Your task to perform on an android device: See recent photos Image 0: 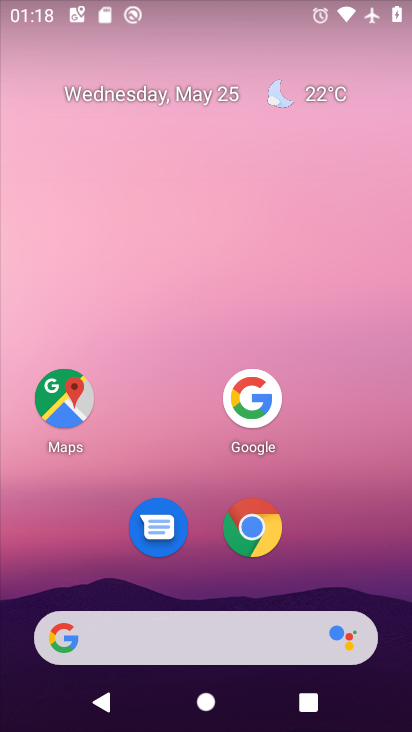
Step 0: press home button
Your task to perform on an android device: See recent photos Image 1: 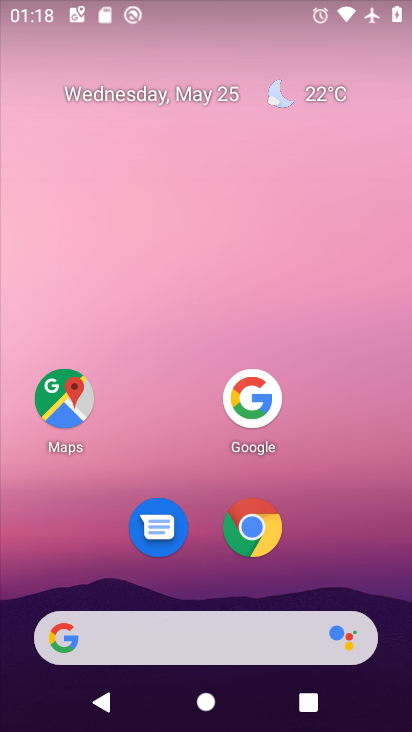
Step 1: drag from (194, 628) to (308, 174)
Your task to perform on an android device: See recent photos Image 2: 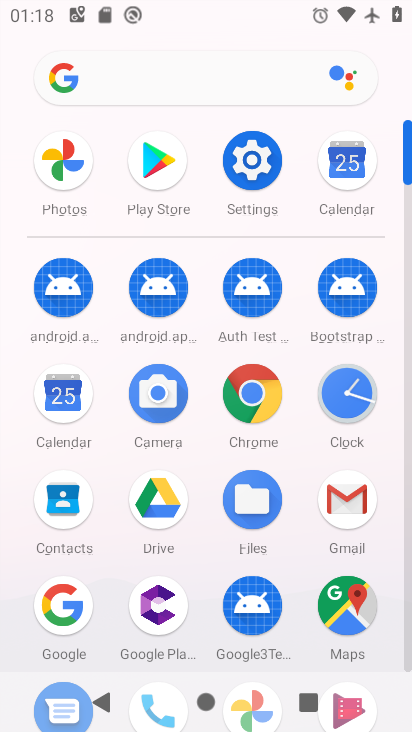
Step 2: drag from (204, 581) to (339, 115)
Your task to perform on an android device: See recent photos Image 3: 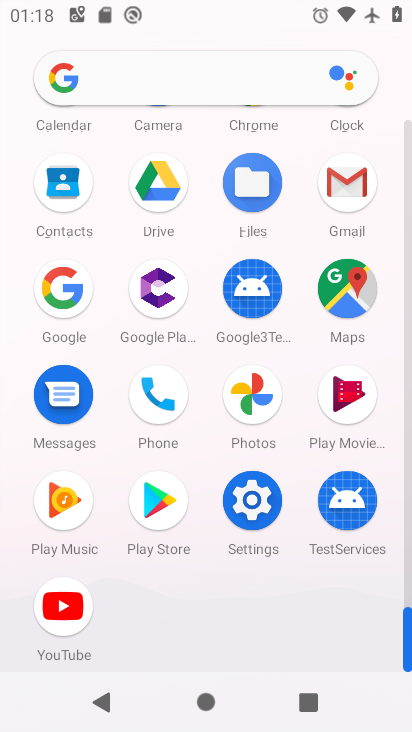
Step 3: click (257, 390)
Your task to perform on an android device: See recent photos Image 4: 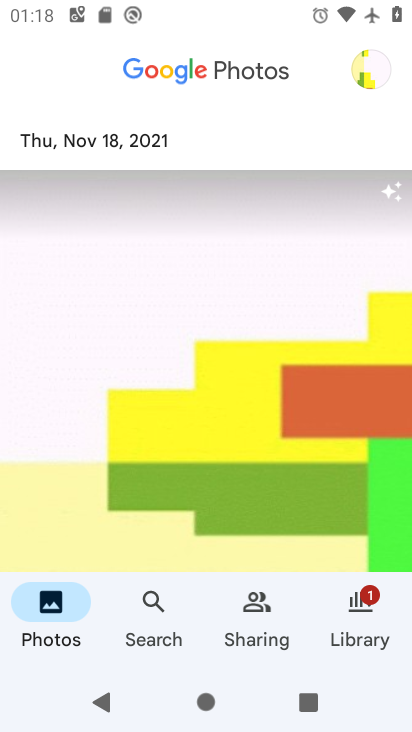
Step 4: click (160, 634)
Your task to perform on an android device: See recent photos Image 5: 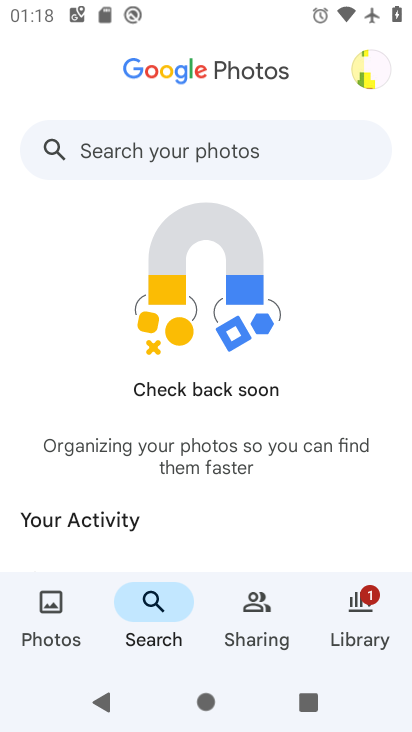
Step 5: drag from (223, 536) to (400, 102)
Your task to perform on an android device: See recent photos Image 6: 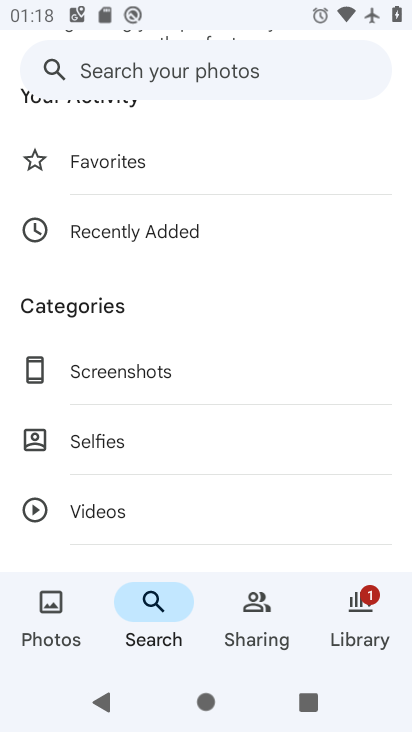
Step 6: click (165, 217)
Your task to perform on an android device: See recent photos Image 7: 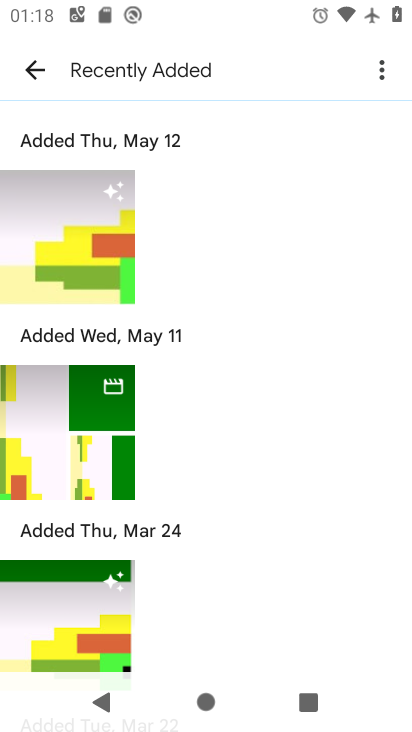
Step 7: task complete